Your task to perform on an android device: Toggle the flashlight Image 0: 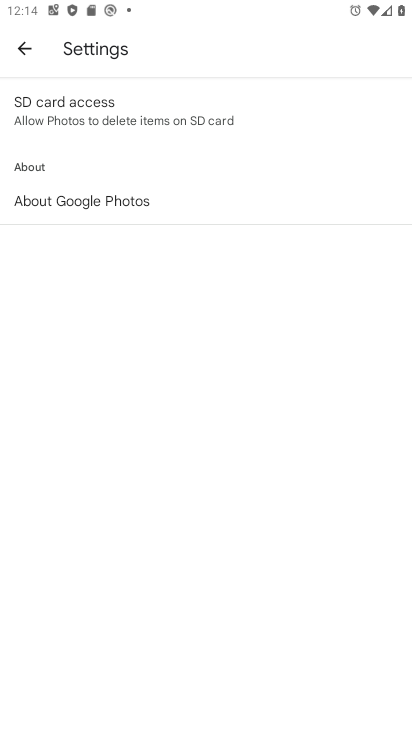
Step 0: press home button
Your task to perform on an android device: Toggle the flashlight Image 1: 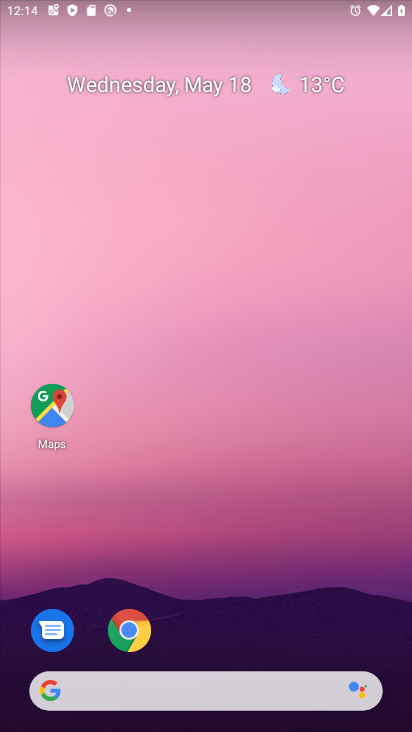
Step 1: drag from (217, 728) to (207, 207)
Your task to perform on an android device: Toggle the flashlight Image 2: 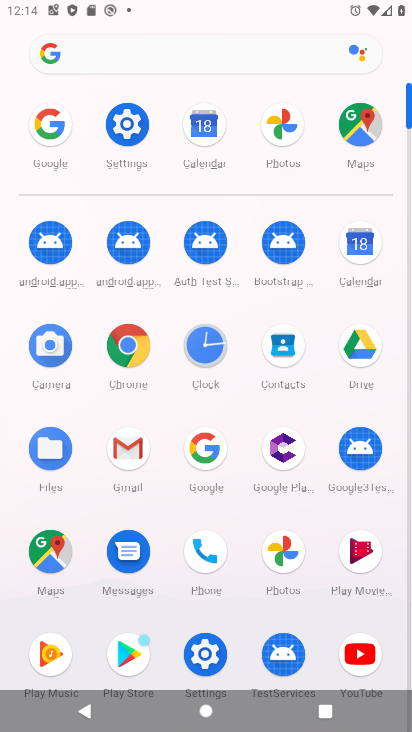
Step 2: click (130, 135)
Your task to perform on an android device: Toggle the flashlight Image 3: 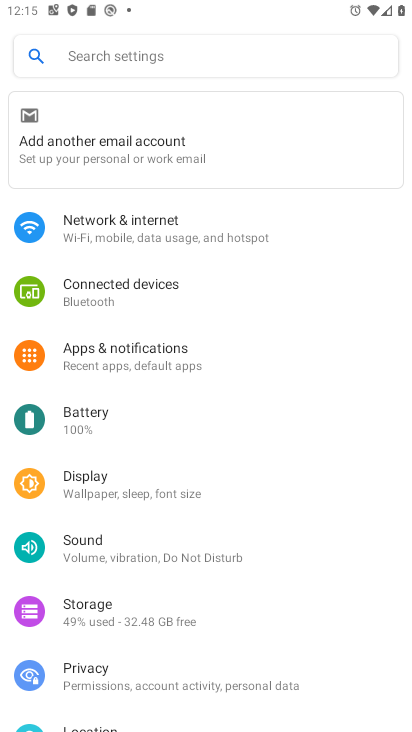
Step 3: task complete